Your task to perform on an android device: check storage Image 0: 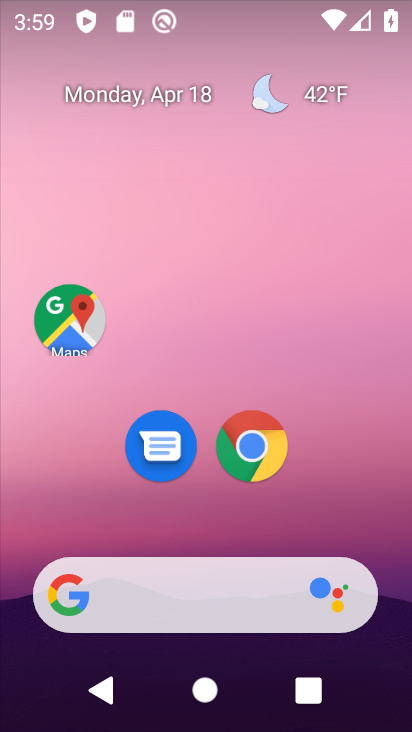
Step 0: drag from (328, 346) to (329, 90)
Your task to perform on an android device: check storage Image 1: 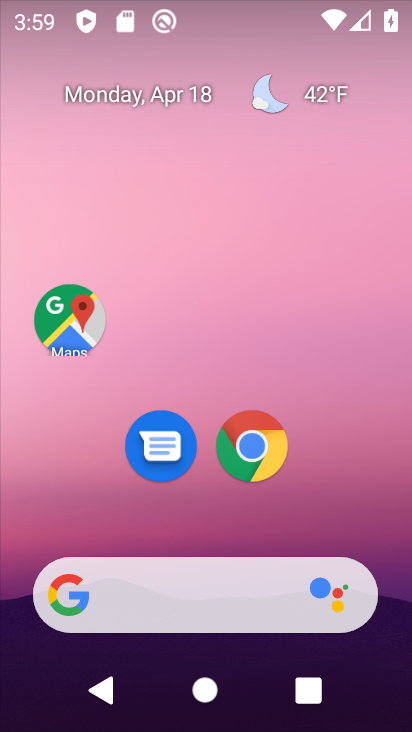
Step 1: drag from (320, 488) to (268, 84)
Your task to perform on an android device: check storage Image 2: 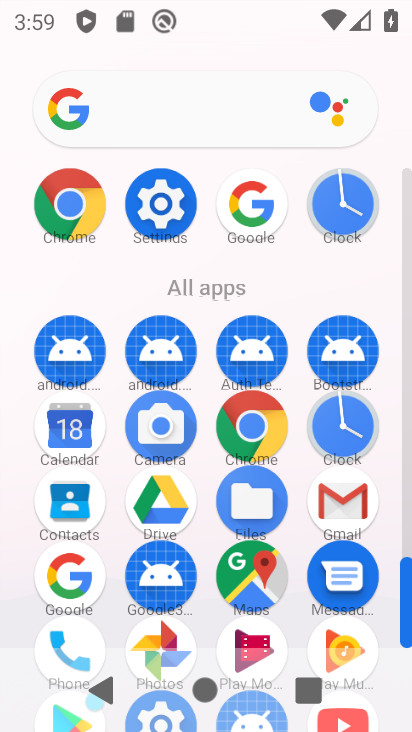
Step 2: click (157, 192)
Your task to perform on an android device: check storage Image 3: 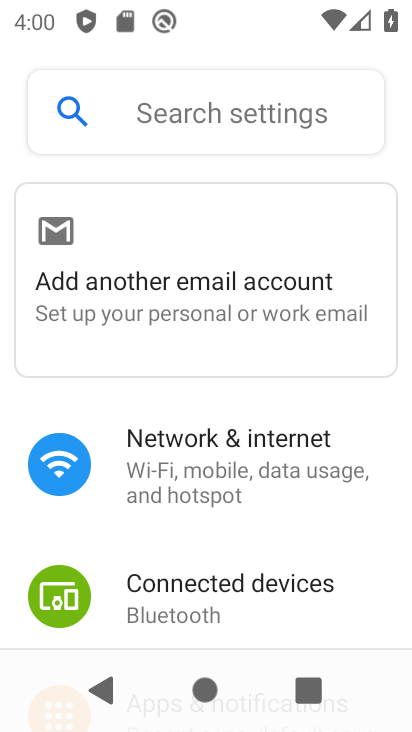
Step 3: drag from (186, 617) to (244, 88)
Your task to perform on an android device: check storage Image 4: 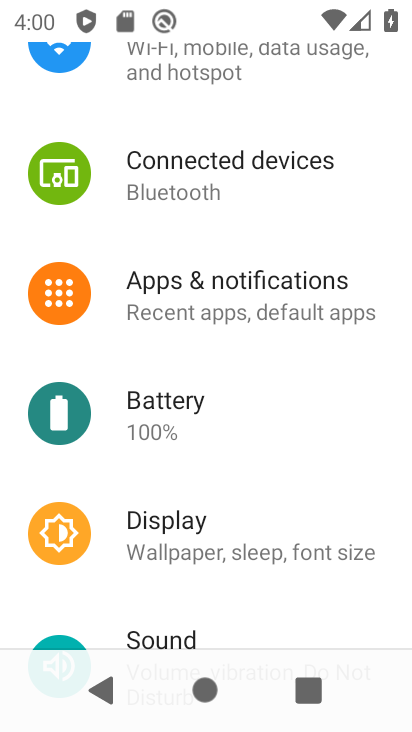
Step 4: drag from (289, 576) to (333, 240)
Your task to perform on an android device: check storage Image 5: 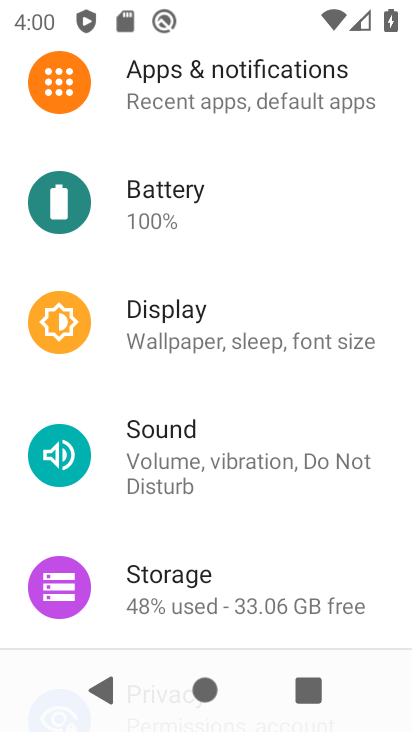
Step 5: click (175, 592)
Your task to perform on an android device: check storage Image 6: 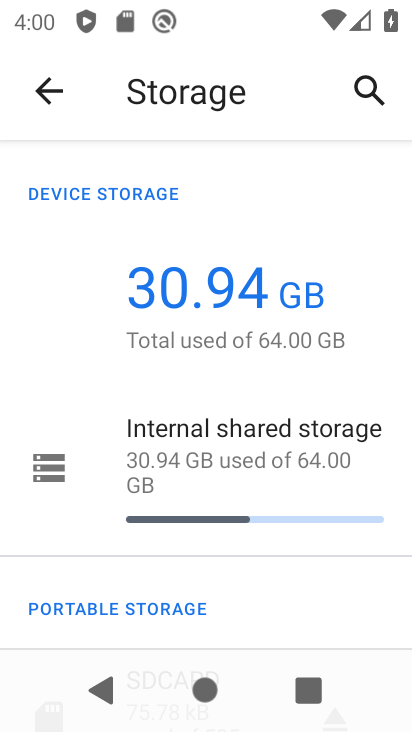
Step 6: task complete